Your task to perform on an android device: turn off sleep mode Image 0: 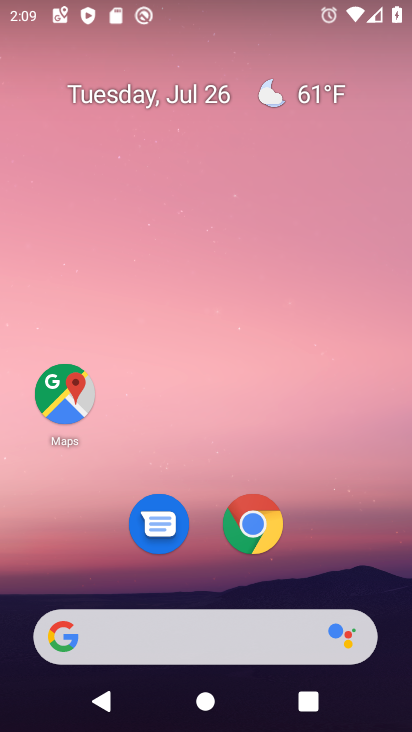
Step 0: press home button
Your task to perform on an android device: turn off sleep mode Image 1: 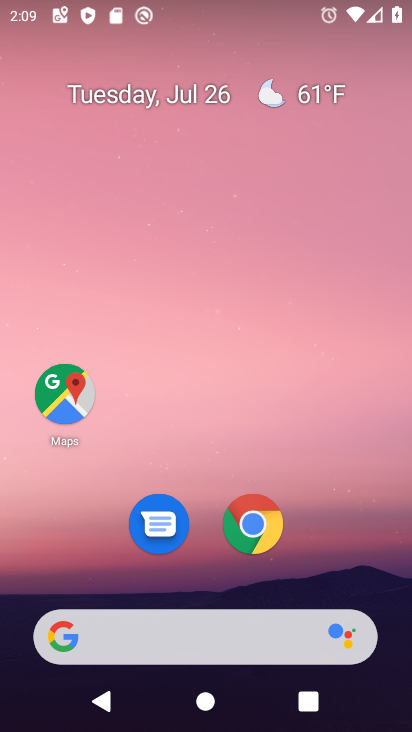
Step 1: drag from (162, 617) to (237, 92)
Your task to perform on an android device: turn off sleep mode Image 2: 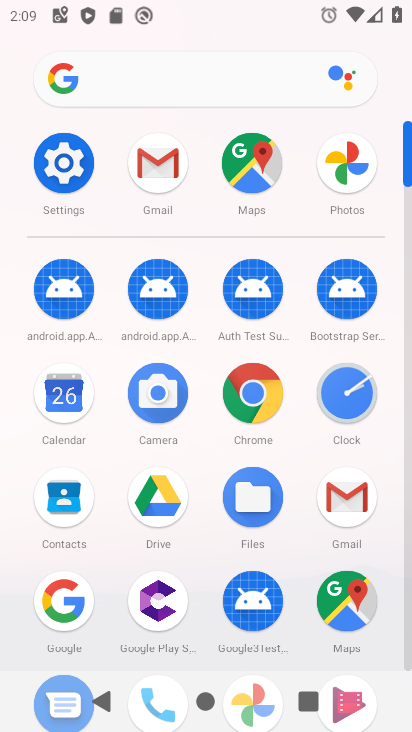
Step 2: click (66, 174)
Your task to perform on an android device: turn off sleep mode Image 3: 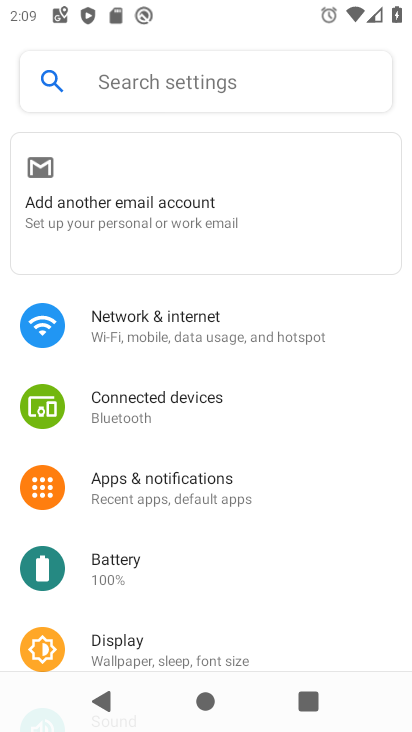
Step 3: drag from (264, 547) to (305, 324)
Your task to perform on an android device: turn off sleep mode Image 4: 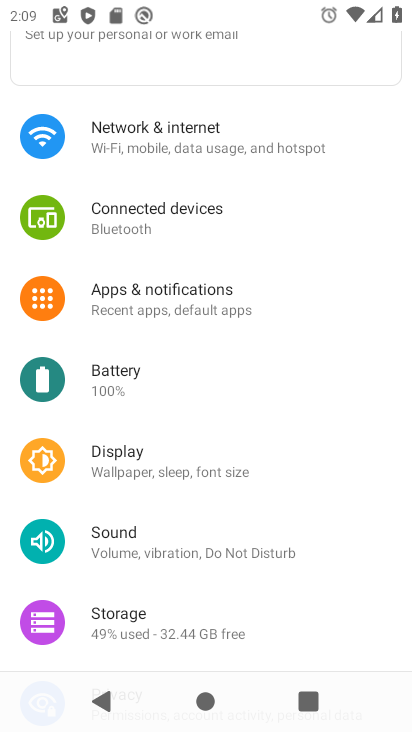
Step 4: click (179, 472)
Your task to perform on an android device: turn off sleep mode Image 5: 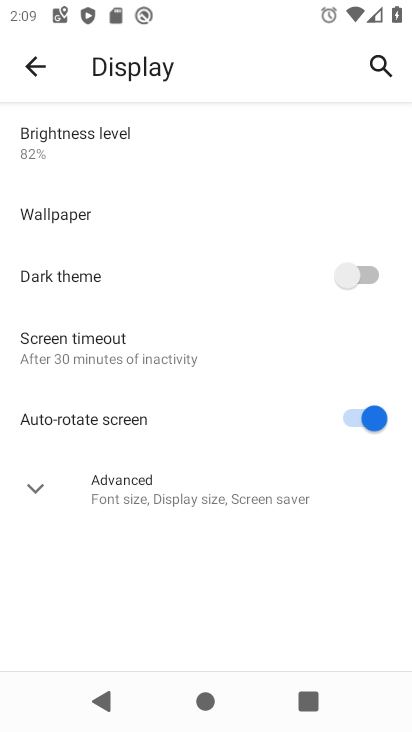
Step 5: task complete